Your task to perform on an android device: star an email in the gmail app Image 0: 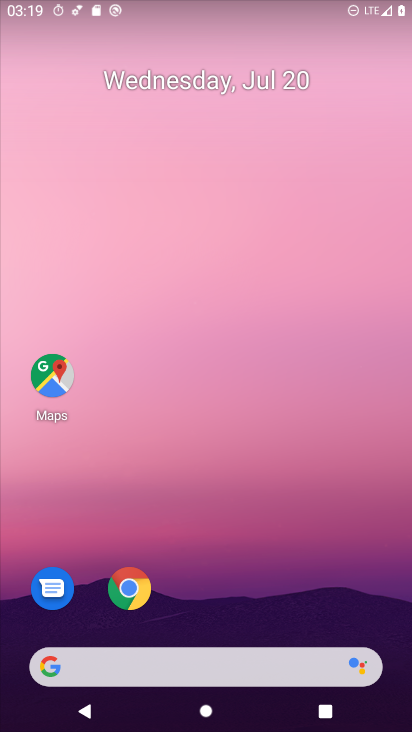
Step 0: drag from (205, 617) to (172, 71)
Your task to perform on an android device: star an email in the gmail app Image 1: 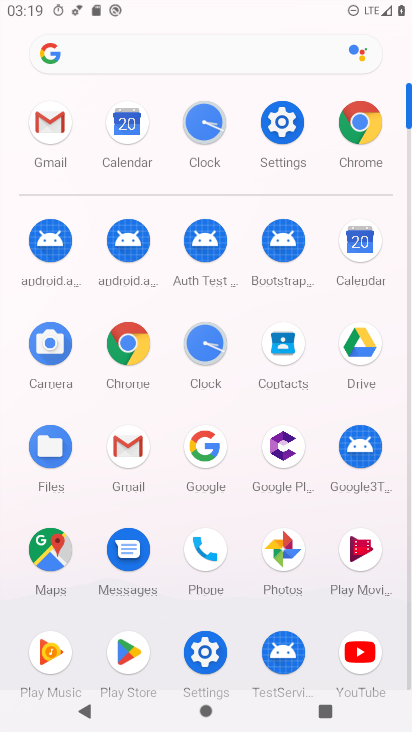
Step 1: click (130, 452)
Your task to perform on an android device: star an email in the gmail app Image 2: 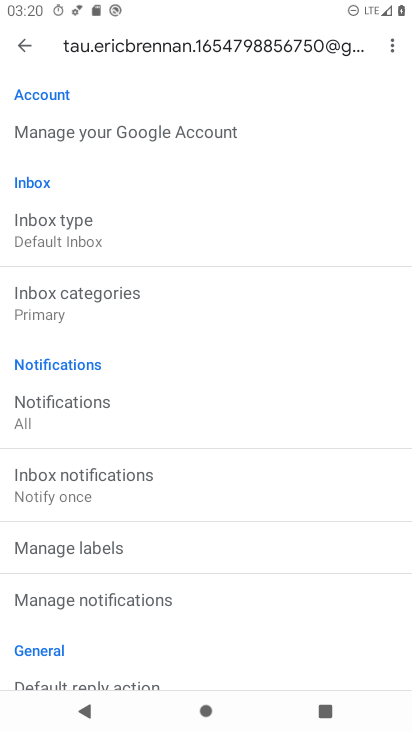
Step 2: click (18, 49)
Your task to perform on an android device: star an email in the gmail app Image 3: 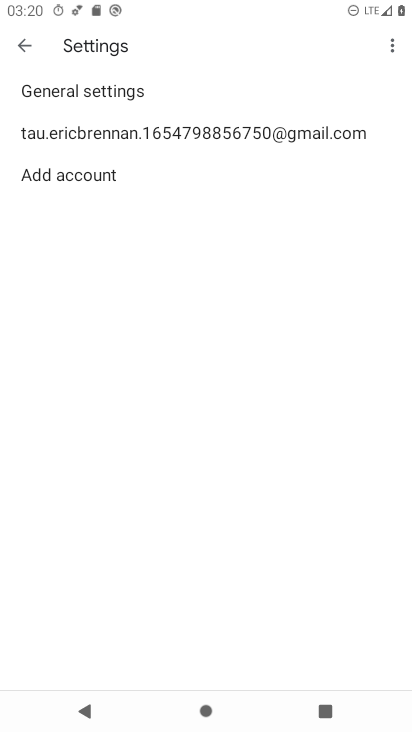
Step 3: click (28, 41)
Your task to perform on an android device: star an email in the gmail app Image 4: 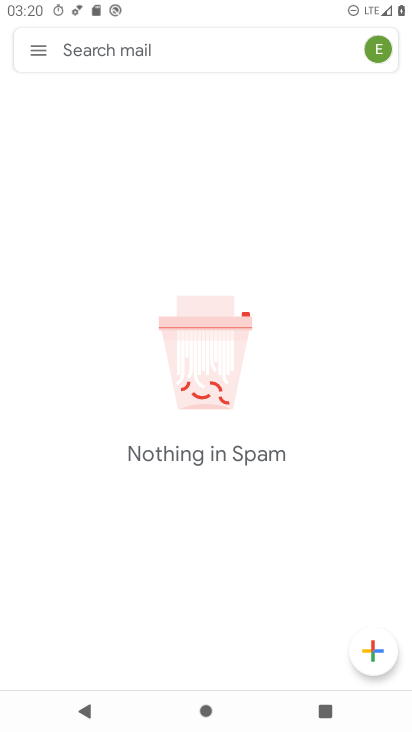
Step 4: drag from (173, 169) to (114, 461)
Your task to perform on an android device: star an email in the gmail app Image 5: 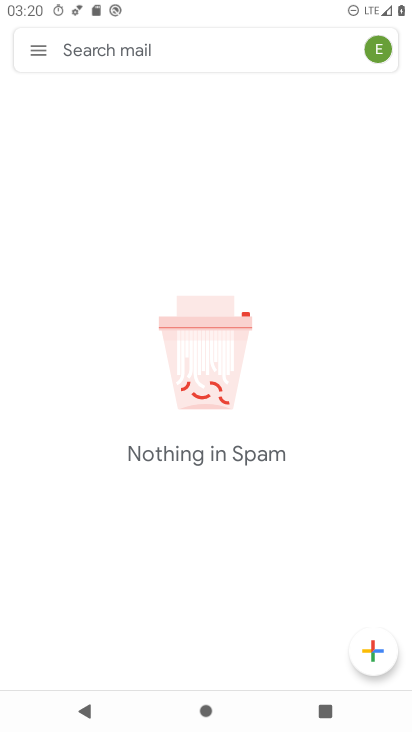
Step 5: click (38, 42)
Your task to perform on an android device: star an email in the gmail app Image 6: 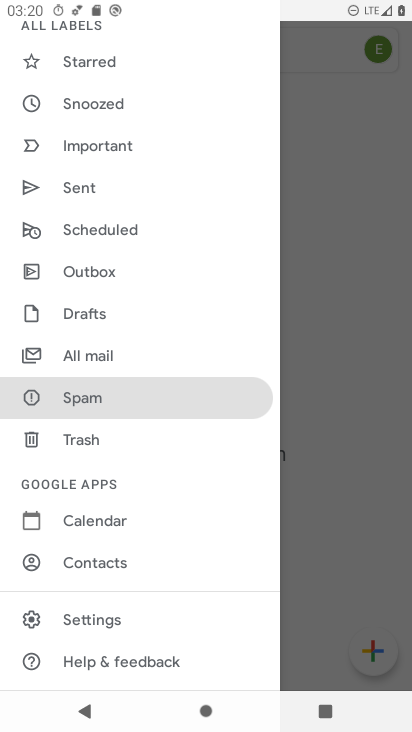
Step 6: drag from (100, 98) to (96, 528)
Your task to perform on an android device: star an email in the gmail app Image 7: 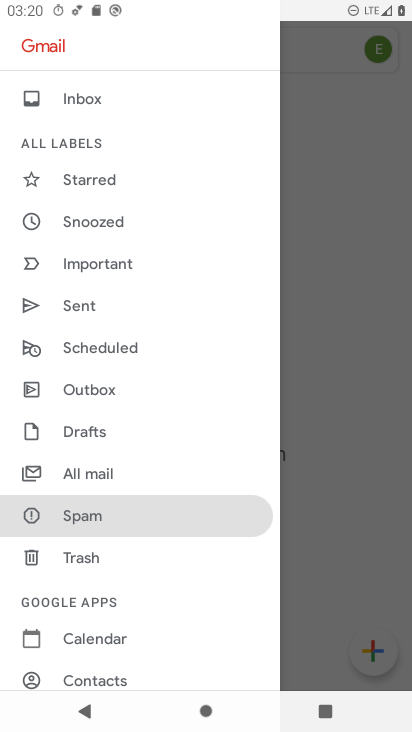
Step 7: click (75, 96)
Your task to perform on an android device: star an email in the gmail app Image 8: 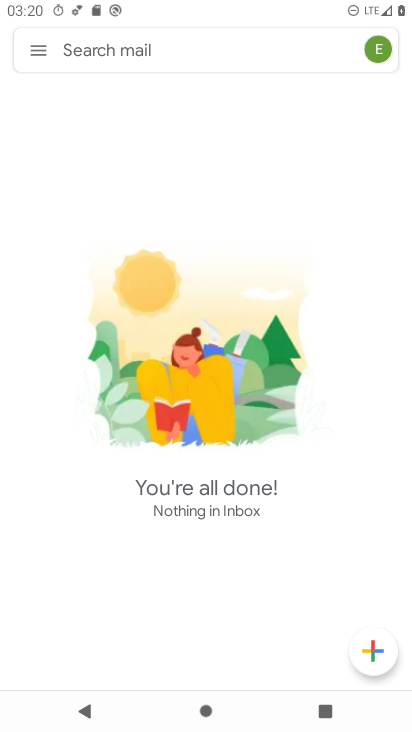
Step 8: task complete